Your task to perform on an android device: Search for sushi restaurants on Maps Image 0: 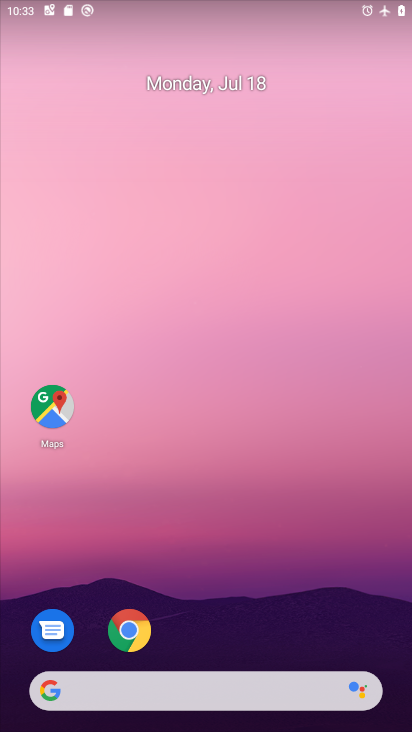
Step 0: click (45, 416)
Your task to perform on an android device: Search for sushi restaurants on Maps Image 1: 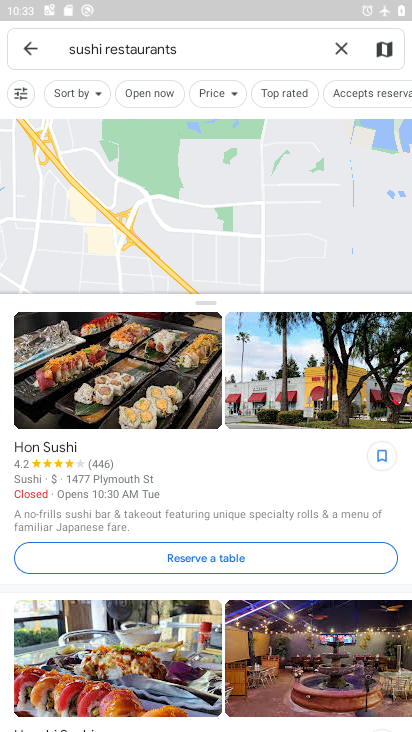
Step 1: task complete